Your task to perform on an android device: Go to internet settings Image 0: 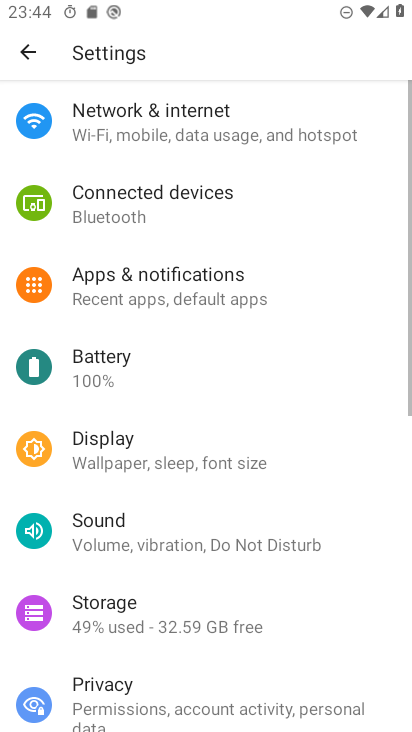
Step 0: press home button
Your task to perform on an android device: Go to internet settings Image 1: 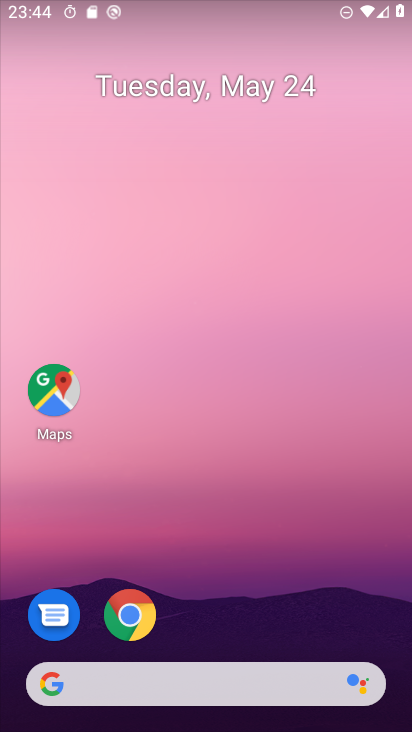
Step 1: drag from (223, 708) to (406, 50)
Your task to perform on an android device: Go to internet settings Image 2: 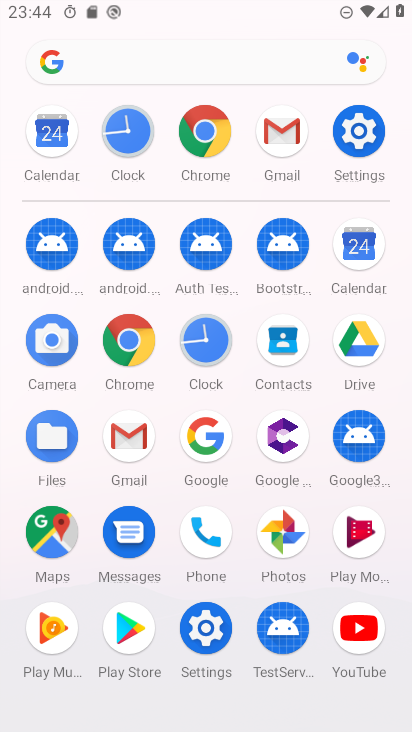
Step 2: click (364, 139)
Your task to perform on an android device: Go to internet settings Image 3: 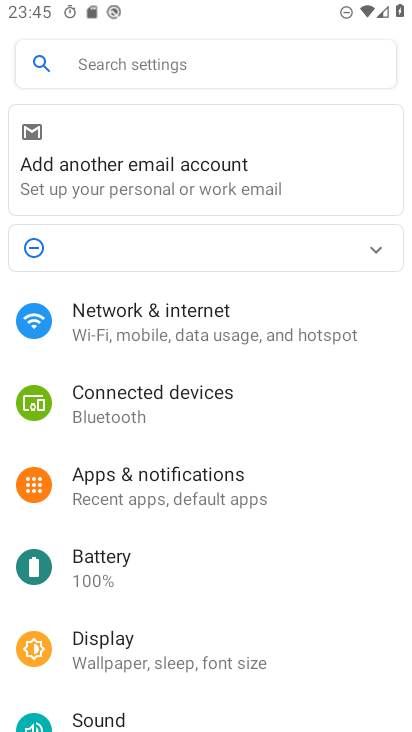
Step 3: click (268, 308)
Your task to perform on an android device: Go to internet settings Image 4: 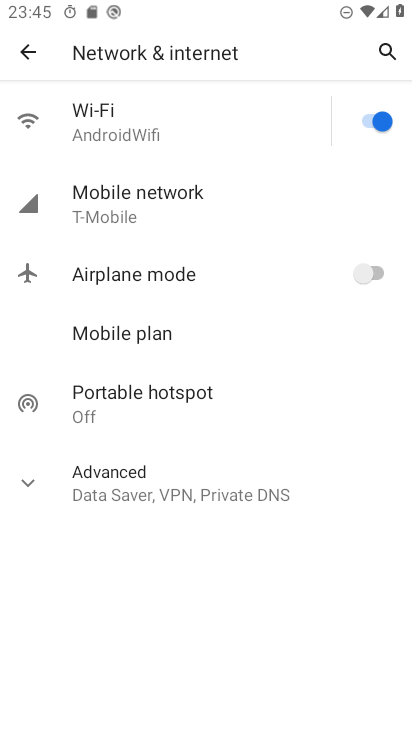
Step 4: task complete